Your task to perform on an android device: open app "DoorDash - Dasher" (install if not already installed) Image 0: 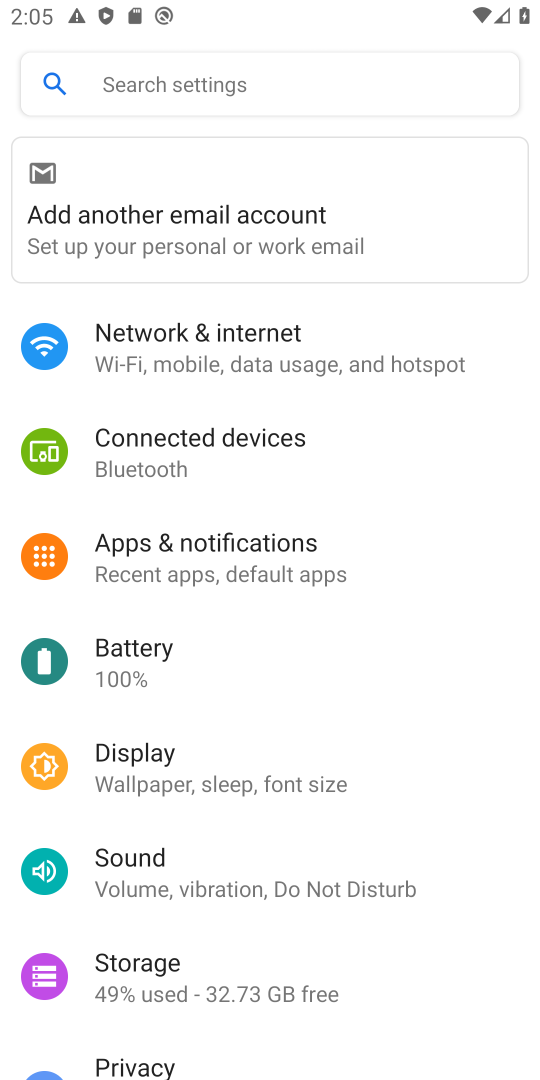
Step 0: press home button
Your task to perform on an android device: open app "DoorDash - Dasher" (install if not already installed) Image 1: 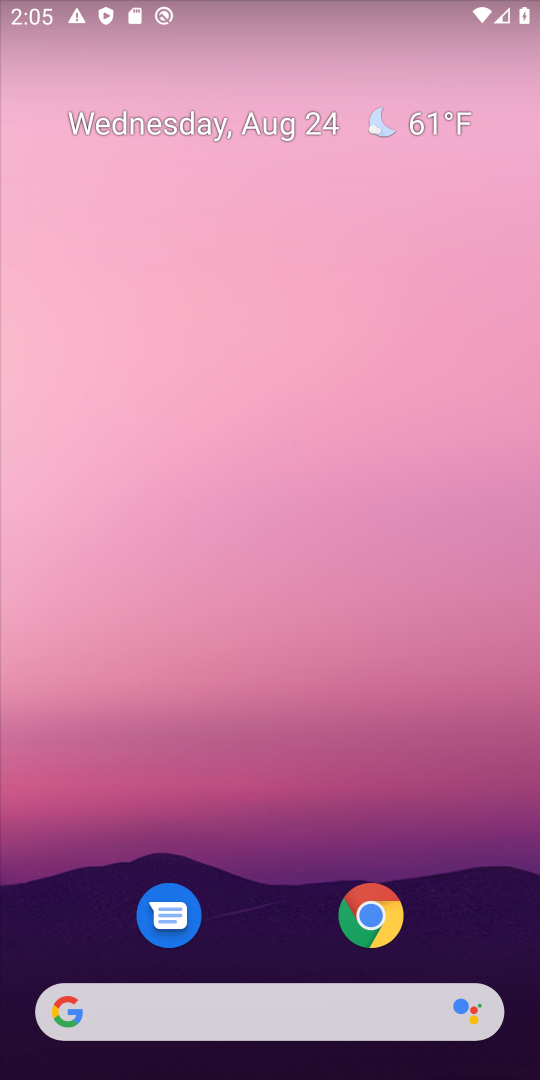
Step 1: drag from (249, 644) to (284, 152)
Your task to perform on an android device: open app "DoorDash - Dasher" (install if not already installed) Image 2: 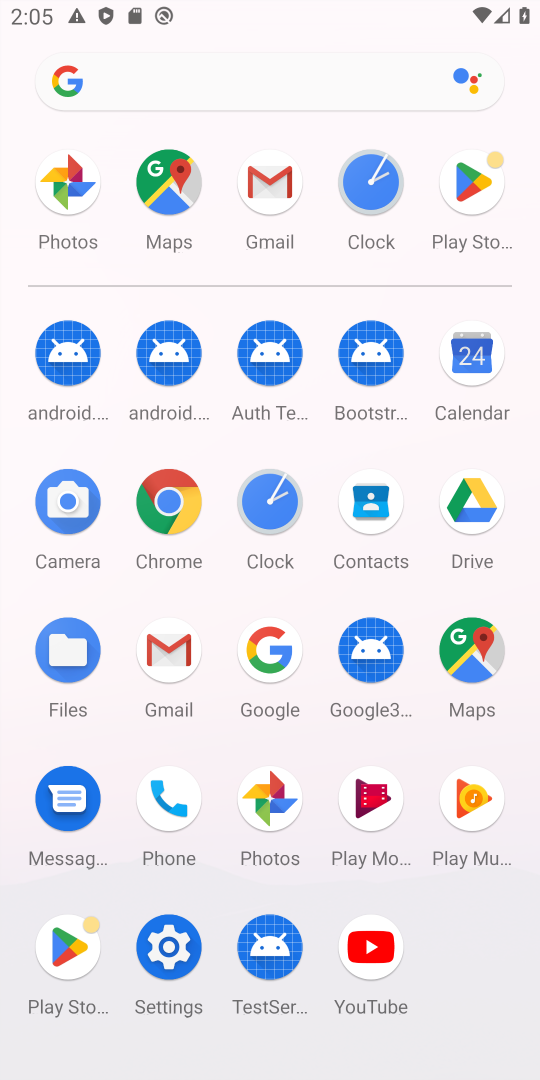
Step 2: click (462, 195)
Your task to perform on an android device: open app "DoorDash - Dasher" (install if not already installed) Image 3: 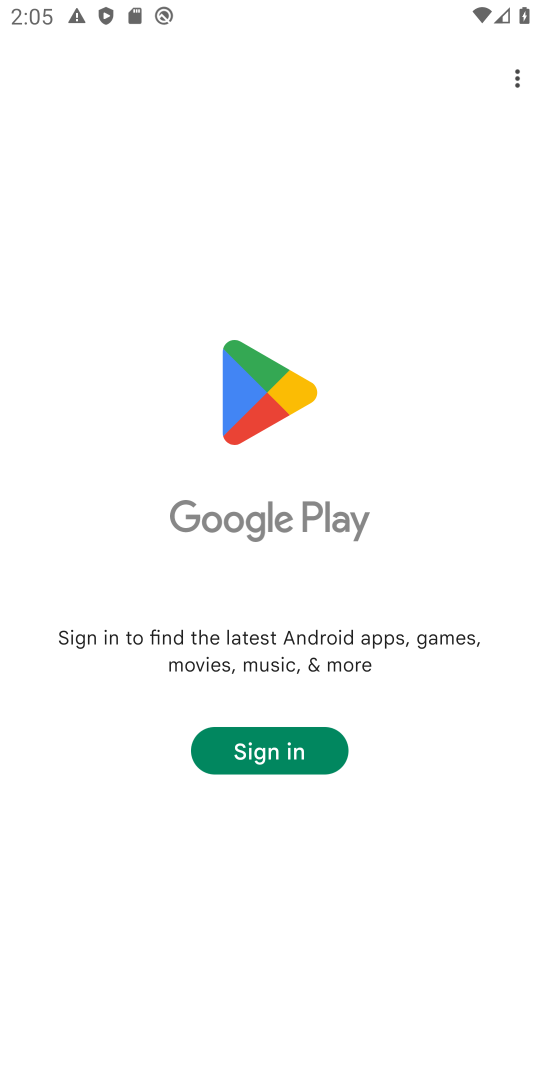
Step 3: task complete